Your task to perform on an android device: Open the calendar and show me this week's events? Image 0: 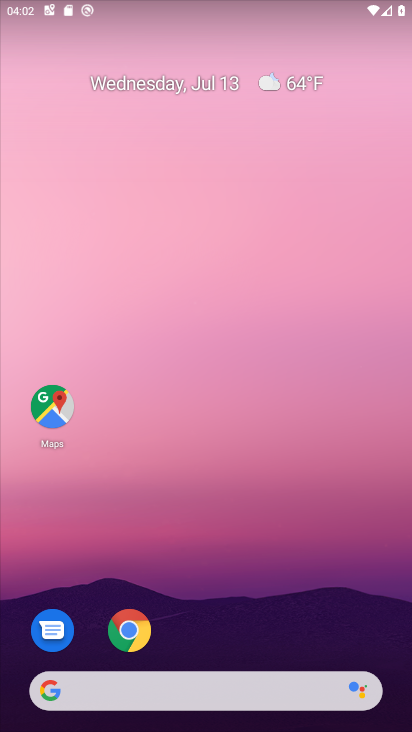
Step 0: click (219, 85)
Your task to perform on an android device: Open the calendar and show me this week's events? Image 1: 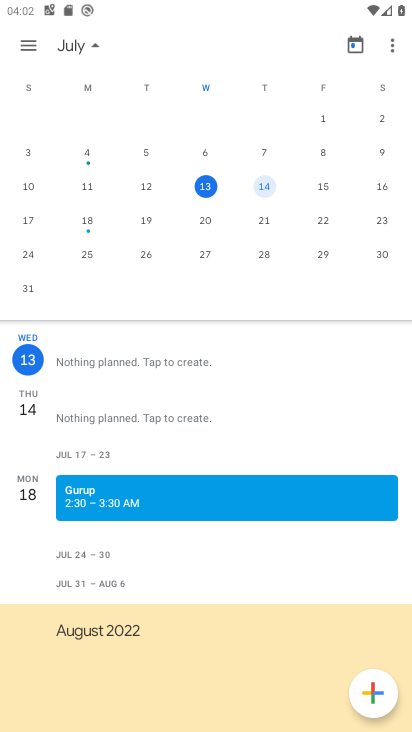
Step 1: click (25, 37)
Your task to perform on an android device: Open the calendar and show me this week's events? Image 2: 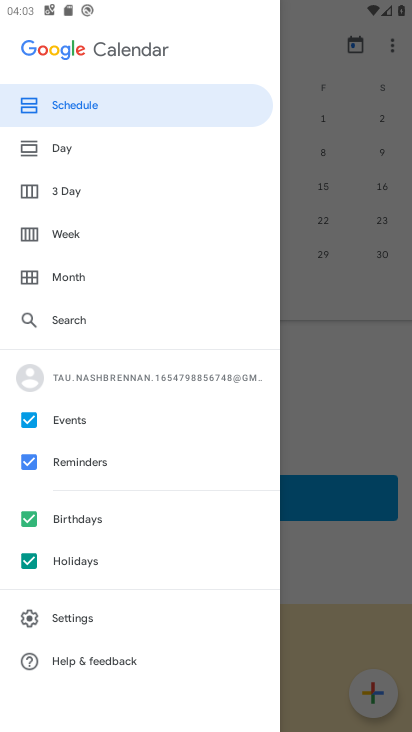
Step 2: click (30, 465)
Your task to perform on an android device: Open the calendar and show me this week's events? Image 3: 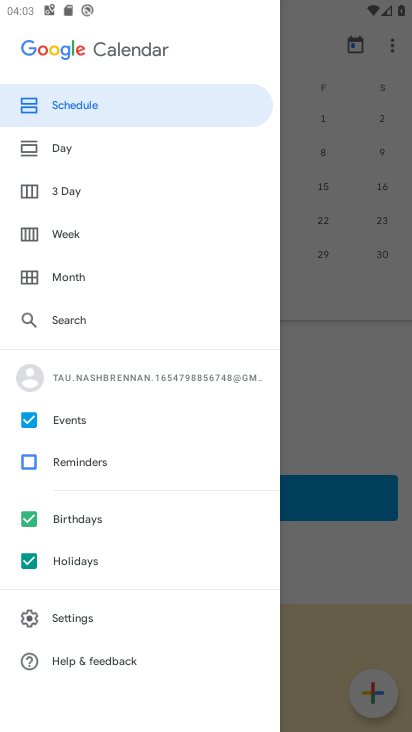
Step 3: click (25, 520)
Your task to perform on an android device: Open the calendar and show me this week's events? Image 4: 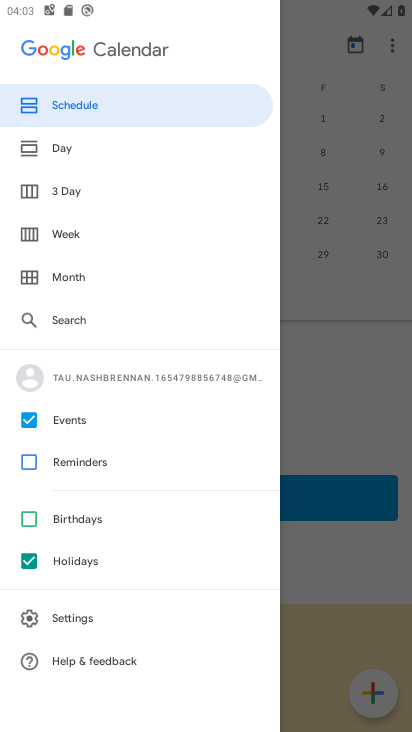
Step 4: click (28, 562)
Your task to perform on an android device: Open the calendar and show me this week's events? Image 5: 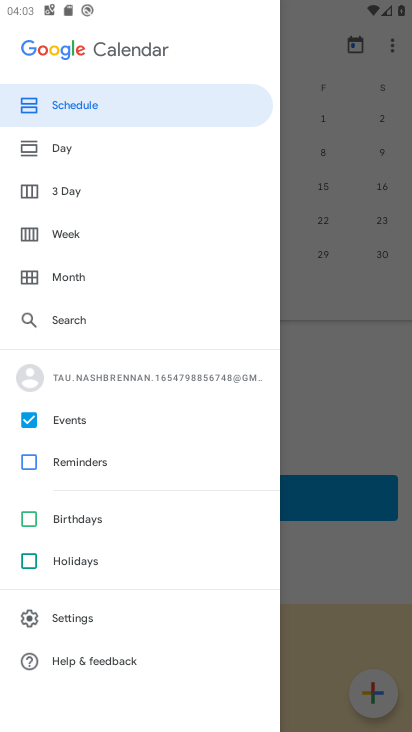
Step 5: click (58, 229)
Your task to perform on an android device: Open the calendar and show me this week's events? Image 6: 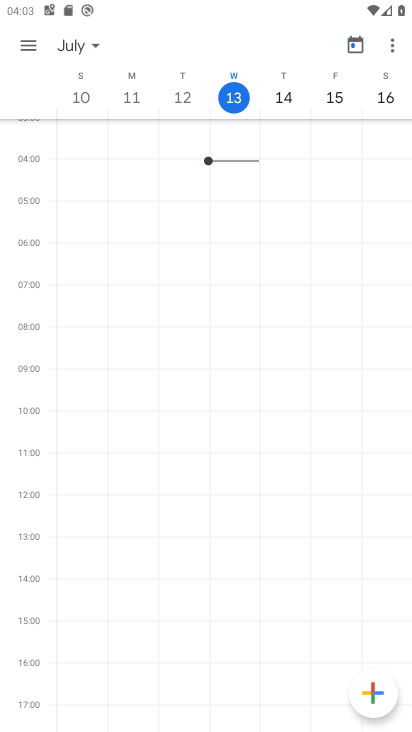
Step 6: task complete